Your task to perform on an android device: turn off wifi Image 0: 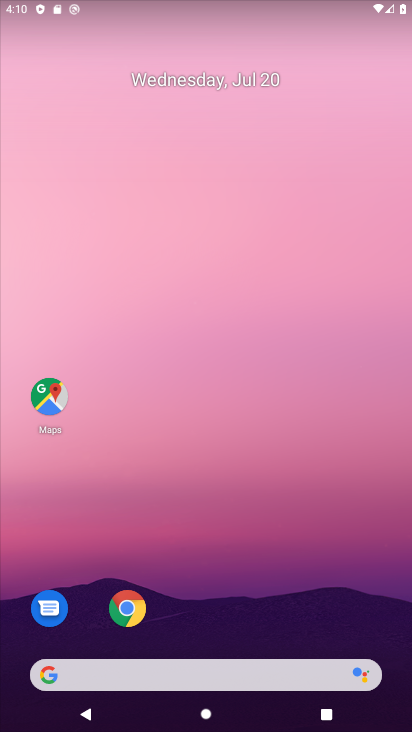
Step 0: drag from (216, 660) to (254, 226)
Your task to perform on an android device: turn off wifi Image 1: 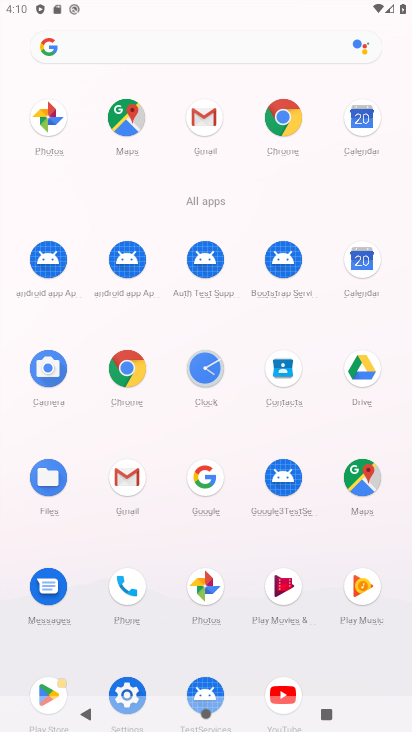
Step 1: click (126, 674)
Your task to perform on an android device: turn off wifi Image 2: 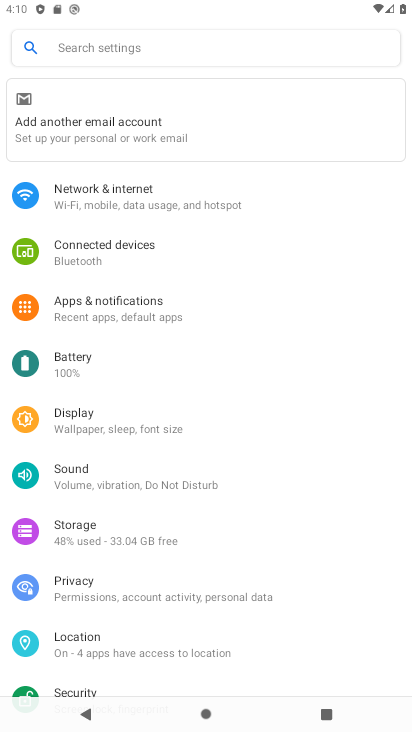
Step 2: click (194, 194)
Your task to perform on an android device: turn off wifi Image 3: 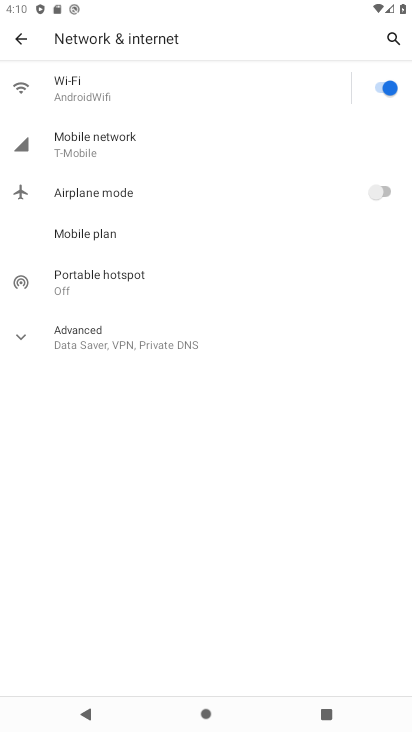
Step 3: click (381, 86)
Your task to perform on an android device: turn off wifi Image 4: 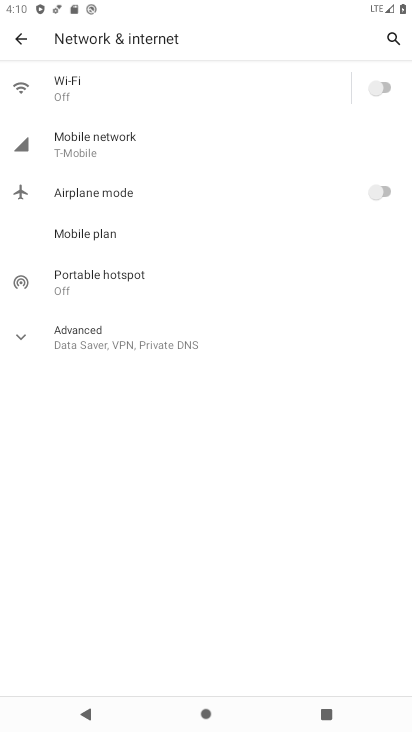
Step 4: task complete